Your task to perform on an android device: empty trash in google photos Image 0: 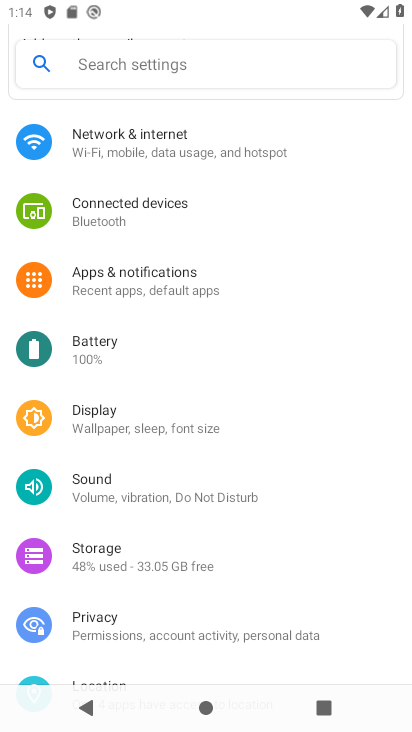
Step 0: press home button
Your task to perform on an android device: empty trash in google photos Image 1: 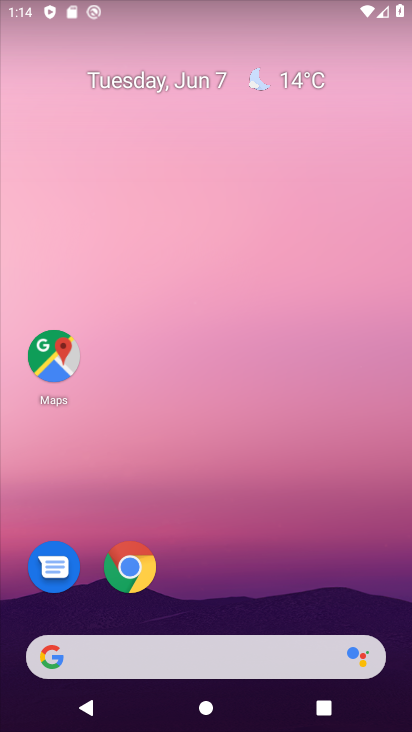
Step 1: drag from (211, 552) to (291, 103)
Your task to perform on an android device: empty trash in google photos Image 2: 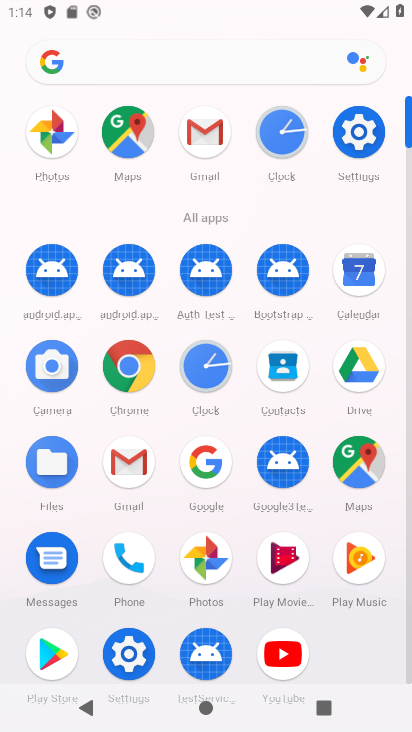
Step 2: click (212, 562)
Your task to perform on an android device: empty trash in google photos Image 3: 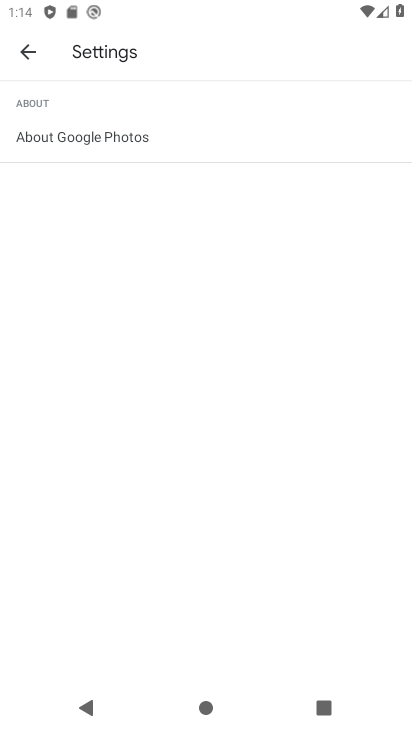
Step 3: press back button
Your task to perform on an android device: empty trash in google photos Image 4: 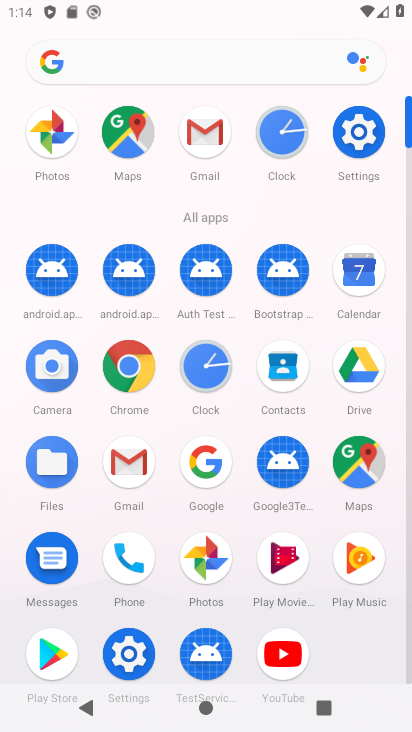
Step 4: click (206, 565)
Your task to perform on an android device: empty trash in google photos Image 5: 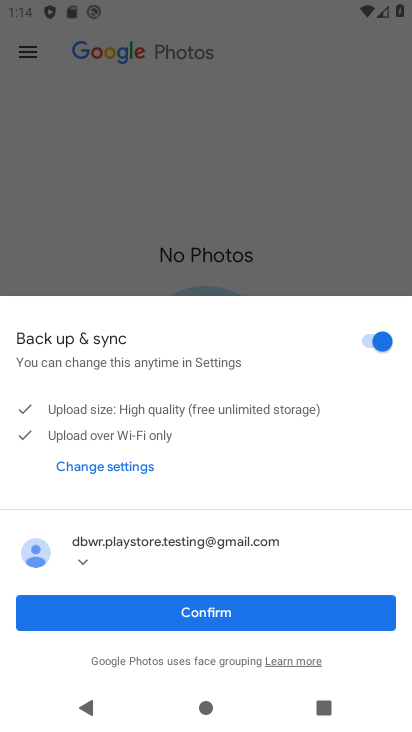
Step 5: click (199, 610)
Your task to perform on an android device: empty trash in google photos Image 6: 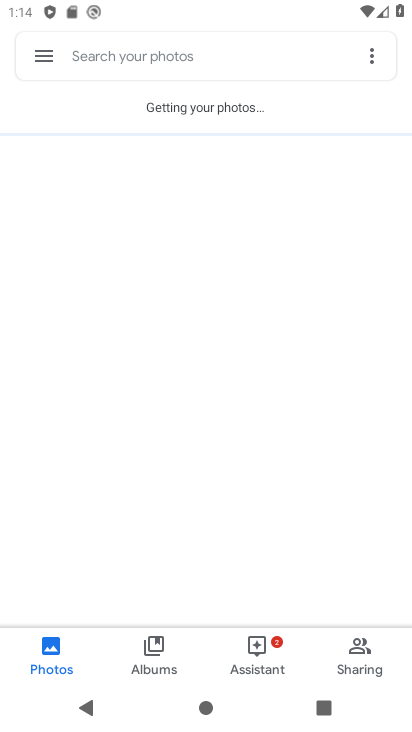
Step 6: click (39, 51)
Your task to perform on an android device: empty trash in google photos Image 7: 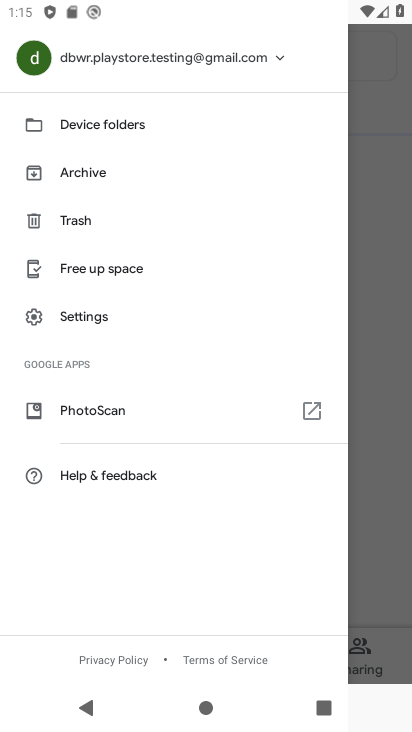
Step 7: click (91, 219)
Your task to perform on an android device: empty trash in google photos Image 8: 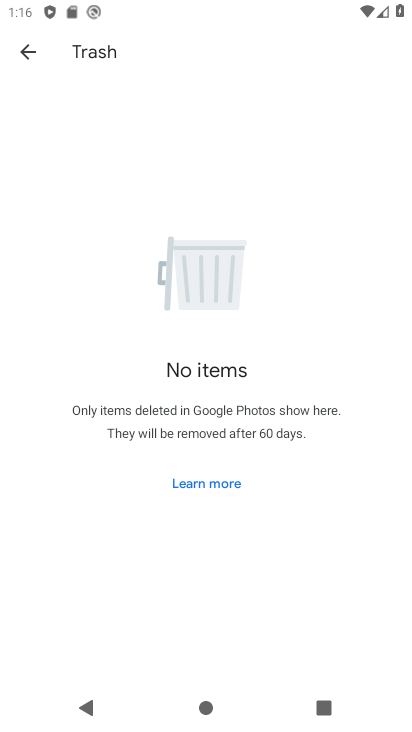
Step 8: task complete